Your task to perform on an android device: Open the stopwatch Image 0: 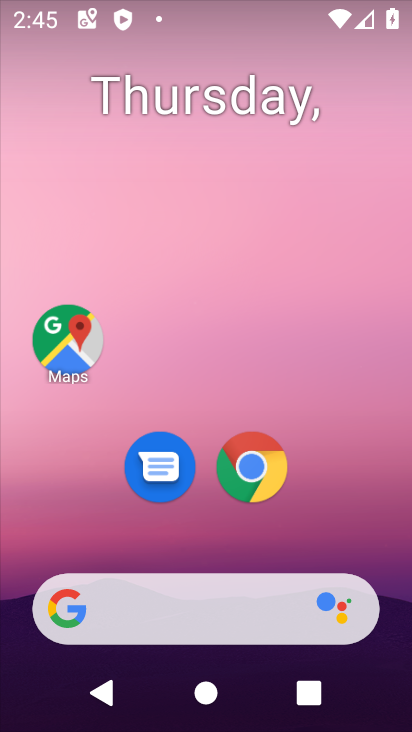
Step 0: click (218, 137)
Your task to perform on an android device: Open the stopwatch Image 1: 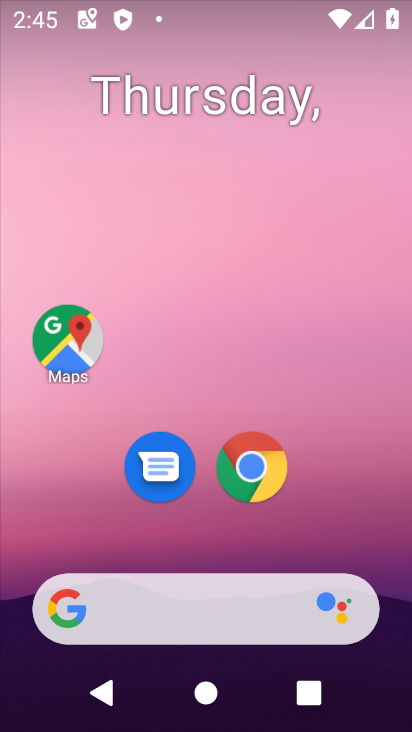
Step 1: drag from (192, 543) to (189, 176)
Your task to perform on an android device: Open the stopwatch Image 2: 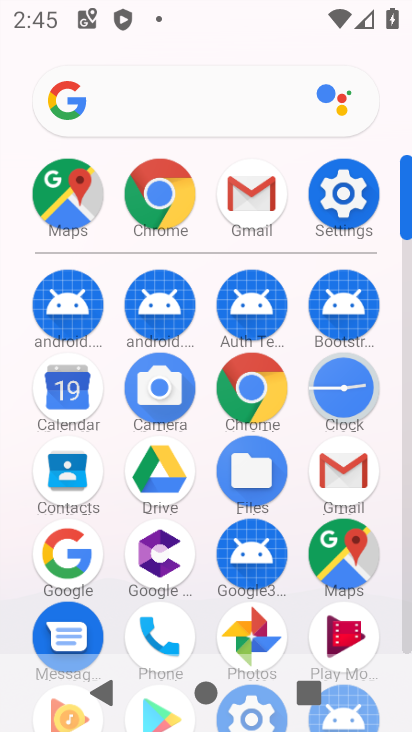
Step 2: click (351, 381)
Your task to perform on an android device: Open the stopwatch Image 3: 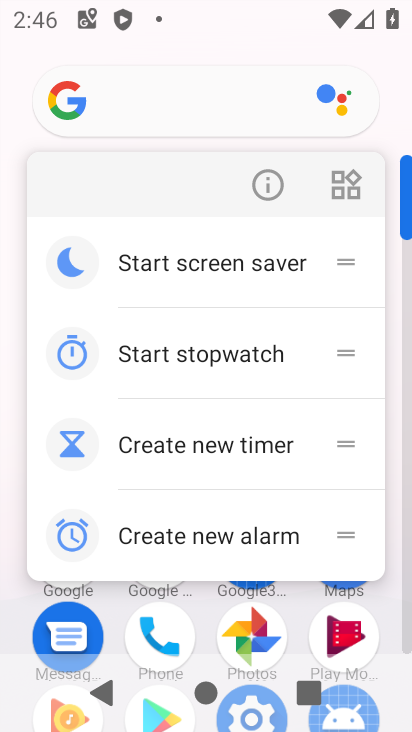
Step 3: click (270, 171)
Your task to perform on an android device: Open the stopwatch Image 4: 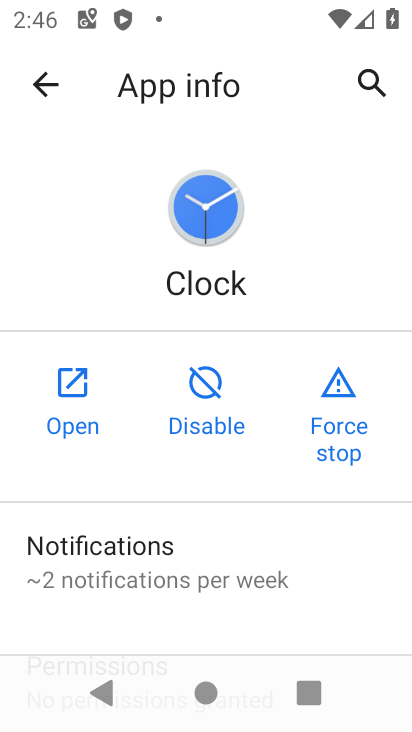
Step 4: click (53, 392)
Your task to perform on an android device: Open the stopwatch Image 5: 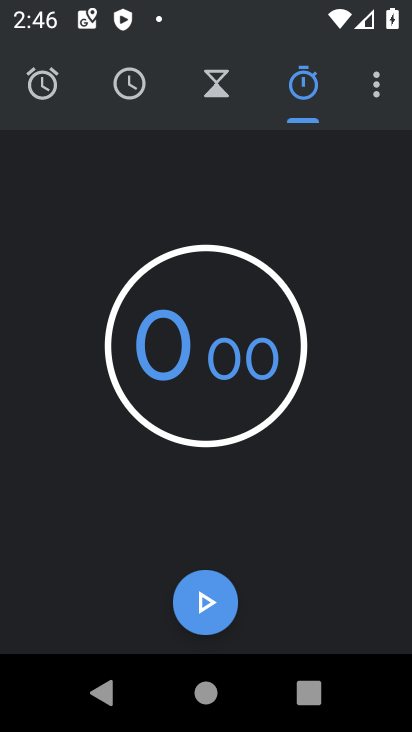
Step 5: click (211, 617)
Your task to perform on an android device: Open the stopwatch Image 6: 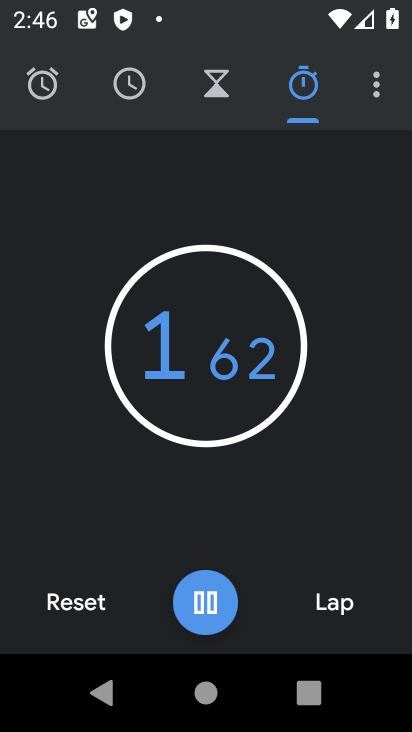
Step 6: task complete